Your task to perform on an android device: move a message to another label in the gmail app Image 0: 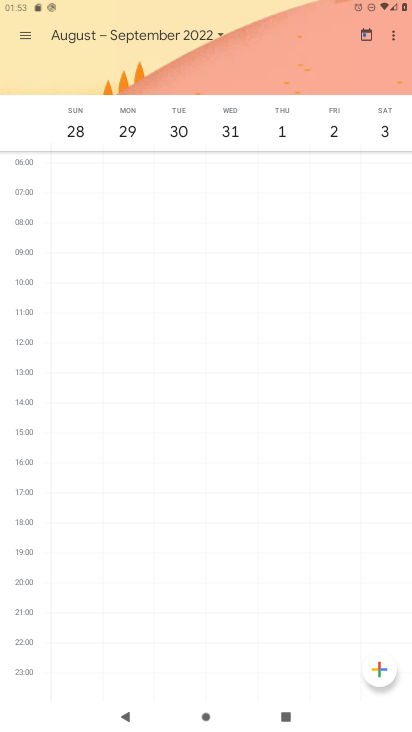
Step 0: press home button
Your task to perform on an android device: move a message to another label in the gmail app Image 1: 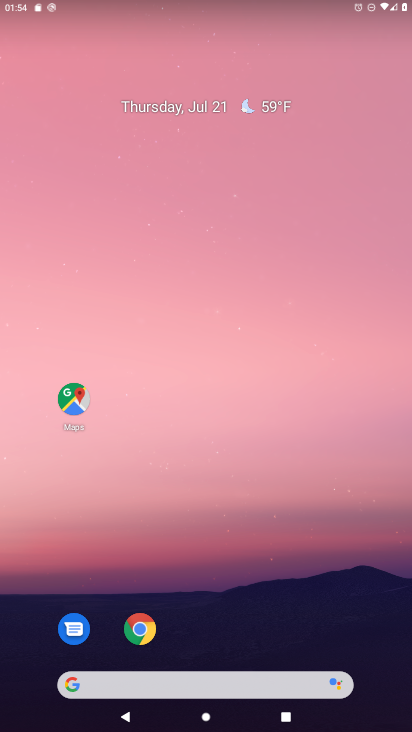
Step 1: drag from (381, 683) to (348, 88)
Your task to perform on an android device: move a message to another label in the gmail app Image 2: 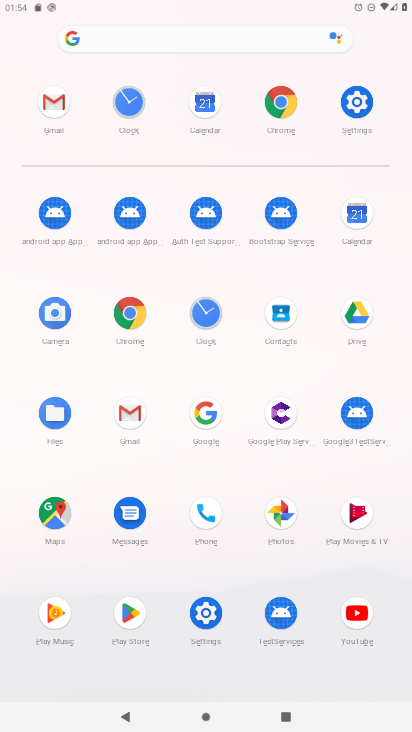
Step 2: click (128, 415)
Your task to perform on an android device: move a message to another label in the gmail app Image 3: 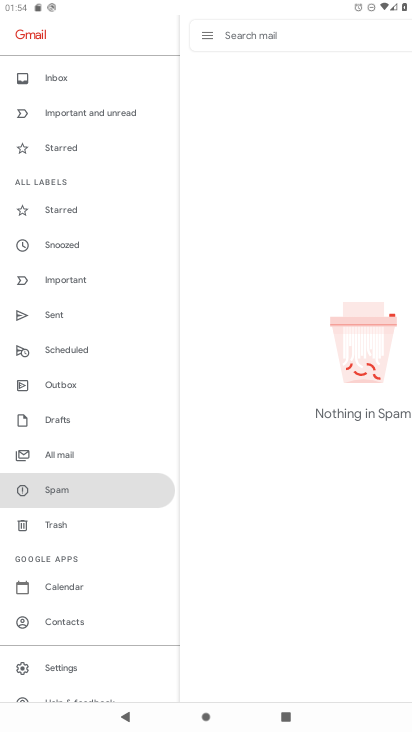
Step 3: click (53, 448)
Your task to perform on an android device: move a message to another label in the gmail app Image 4: 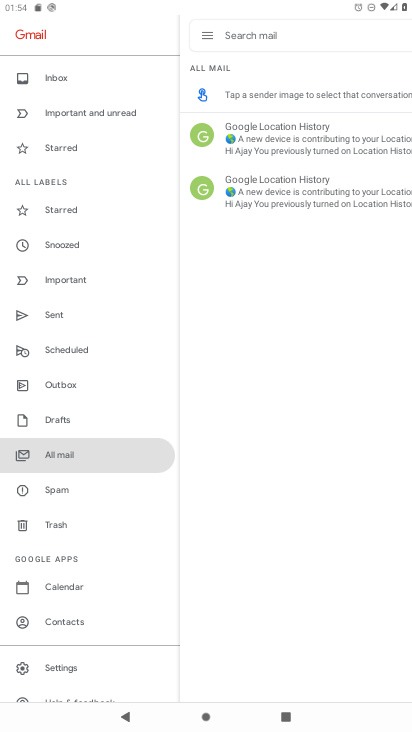
Step 4: click (308, 134)
Your task to perform on an android device: move a message to another label in the gmail app Image 5: 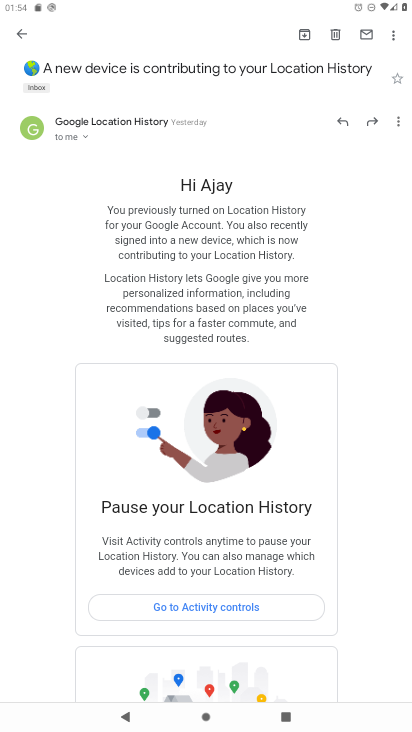
Step 5: click (394, 36)
Your task to perform on an android device: move a message to another label in the gmail app Image 6: 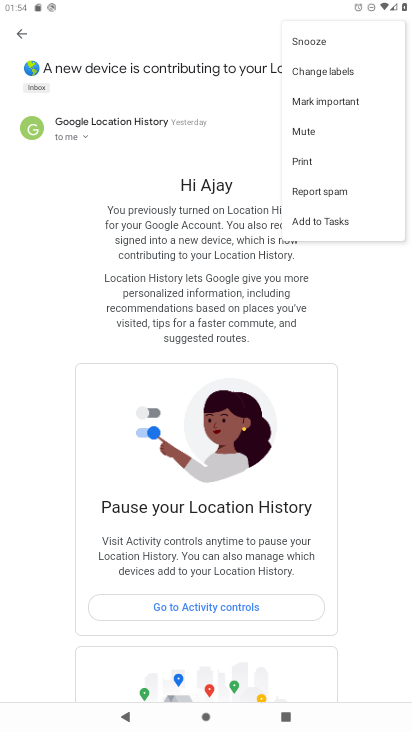
Step 6: click (324, 68)
Your task to perform on an android device: move a message to another label in the gmail app Image 7: 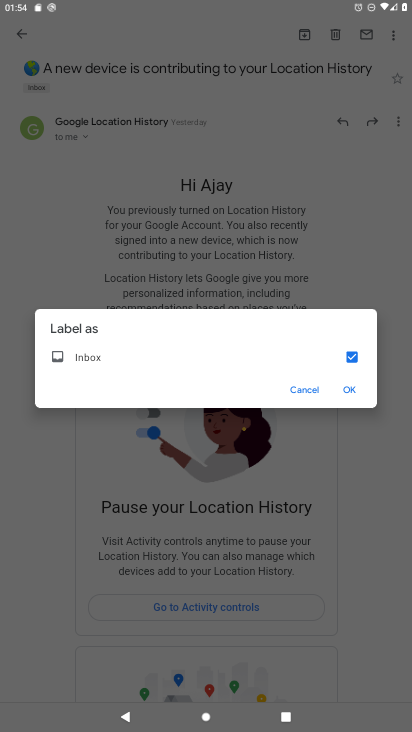
Step 7: click (350, 387)
Your task to perform on an android device: move a message to another label in the gmail app Image 8: 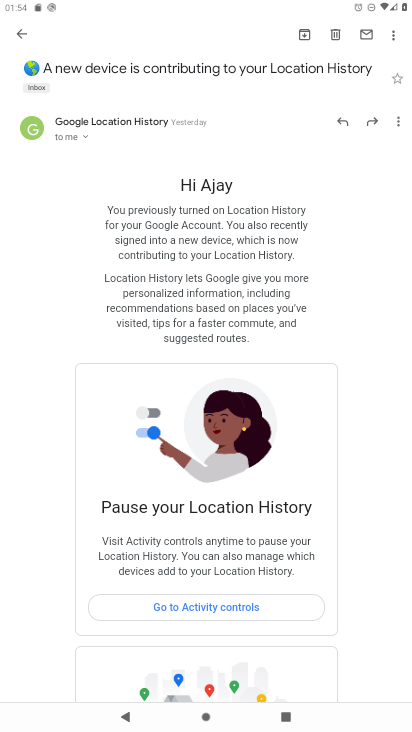
Step 8: task complete